Your task to perform on an android device: Open the map Image 0: 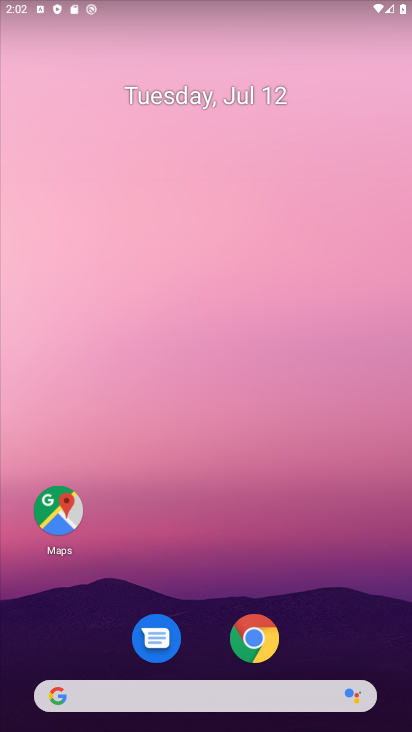
Step 0: click (53, 503)
Your task to perform on an android device: Open the map Image 1: 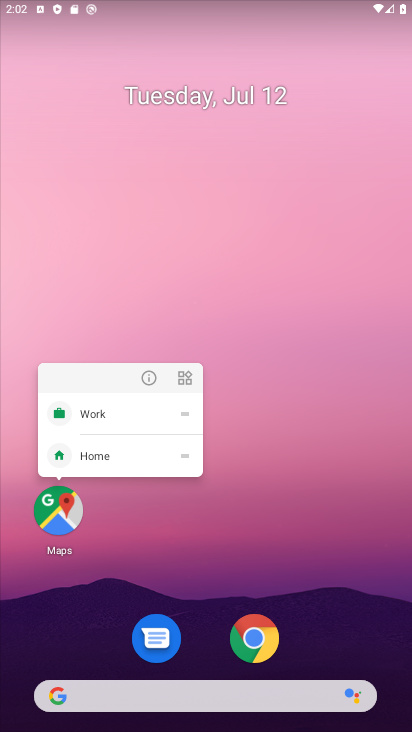
Step 1: click (44, 512)
Your task to perform on an android device: Open the map Image 2: 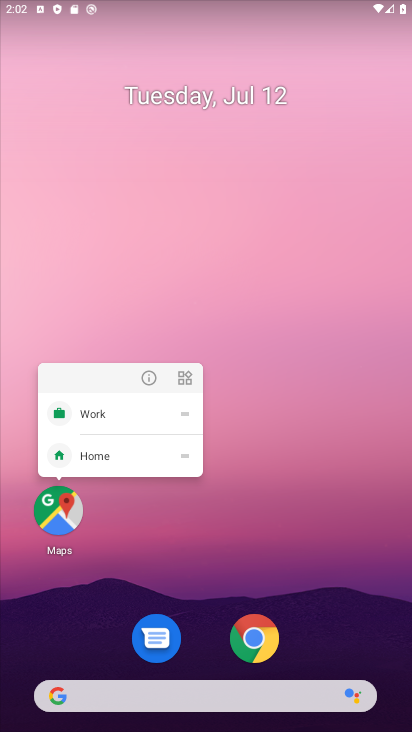
Step 2: click (51, 518)
Your task to perform on an android device: Open the map Image 3: 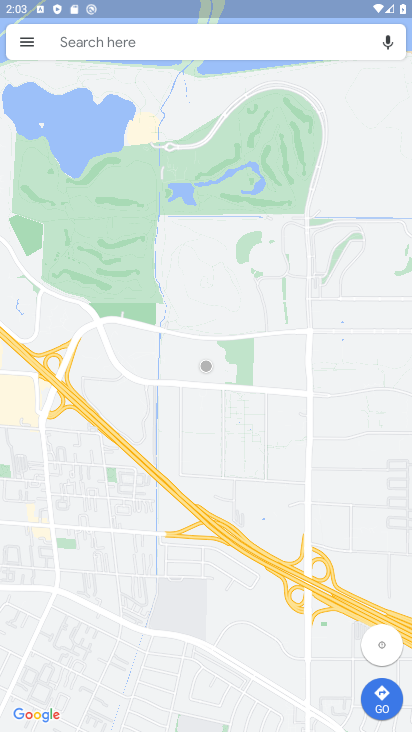
Step 3: task complete